Your task to perform on an android device: Show me popular games on the Play Store Image 0: 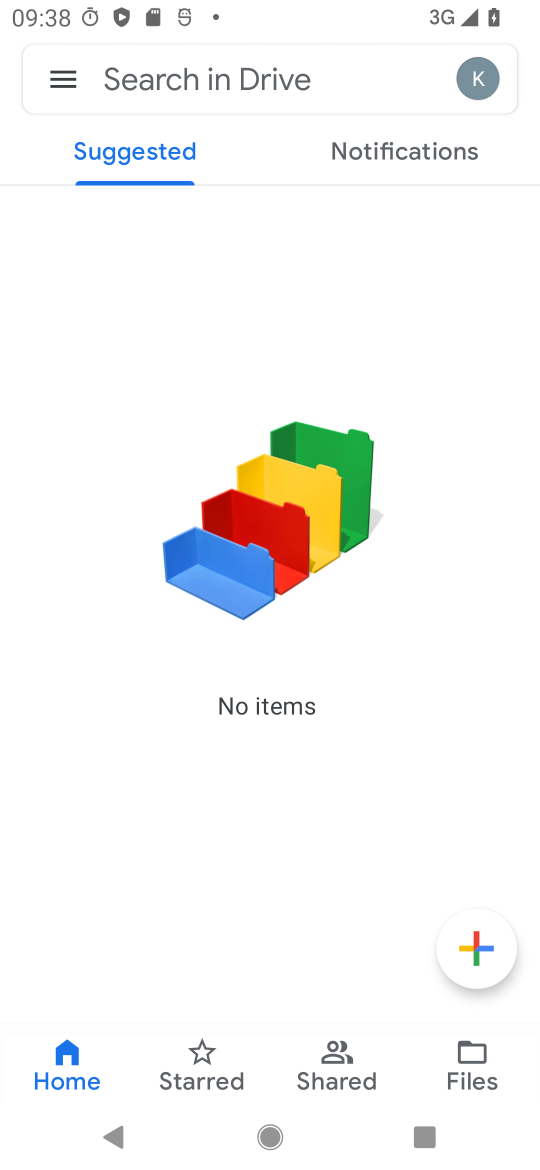
Step 0: press home button
Your task to perform on an android device: Show me popular games on the Play Store Image 1: 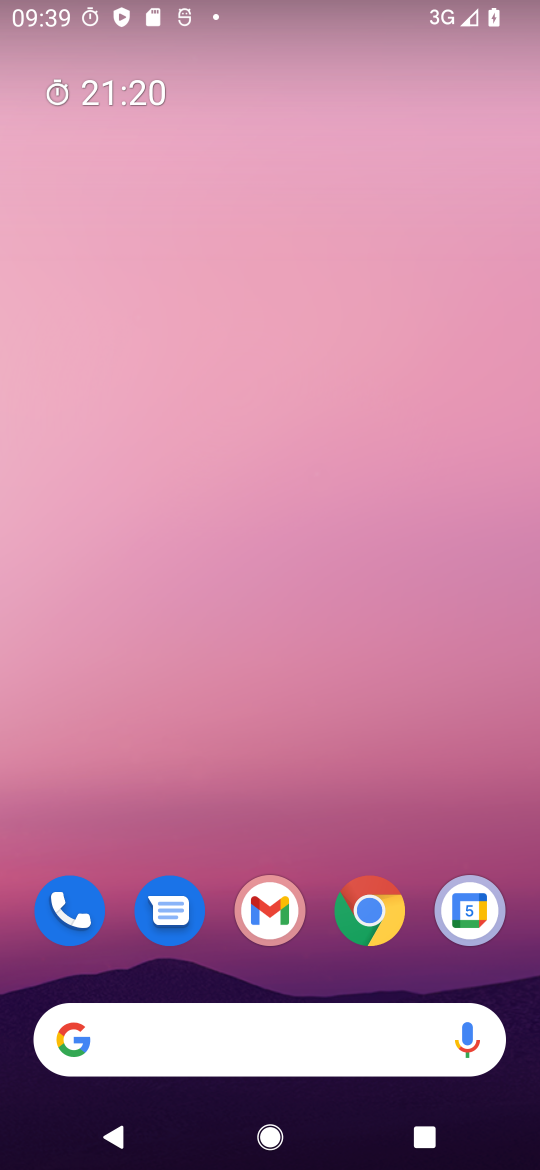
Step 1: drag from (376, 1039) to (309, 6)
Your task to perform on an android device: Show me popular games on the Play Store Image 2: 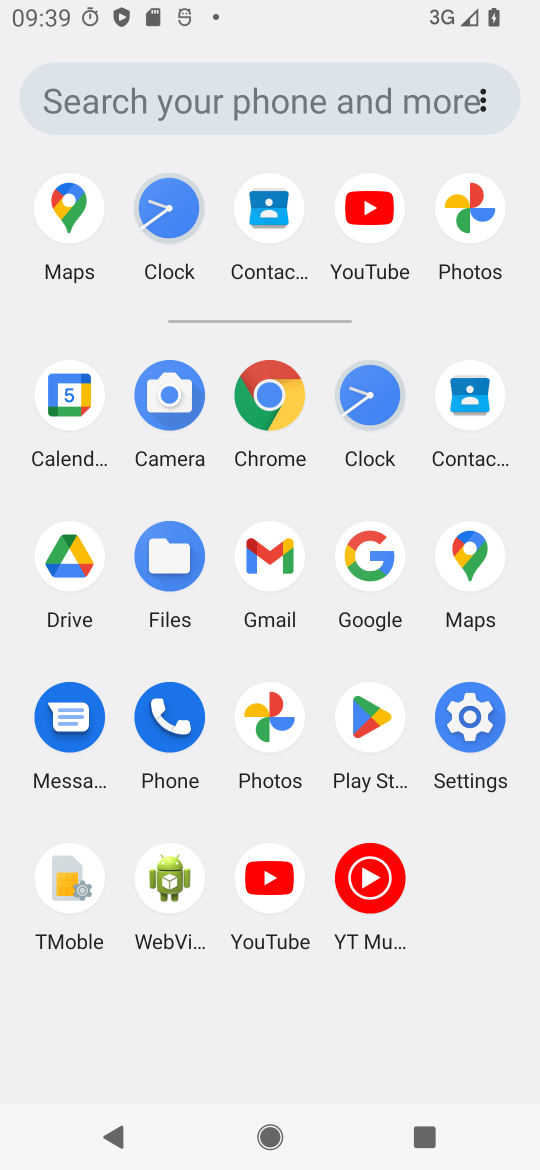
Step 2: click (375, 726)
Your task to perform on an android device: Show me popular games on the Play Store Image 3: 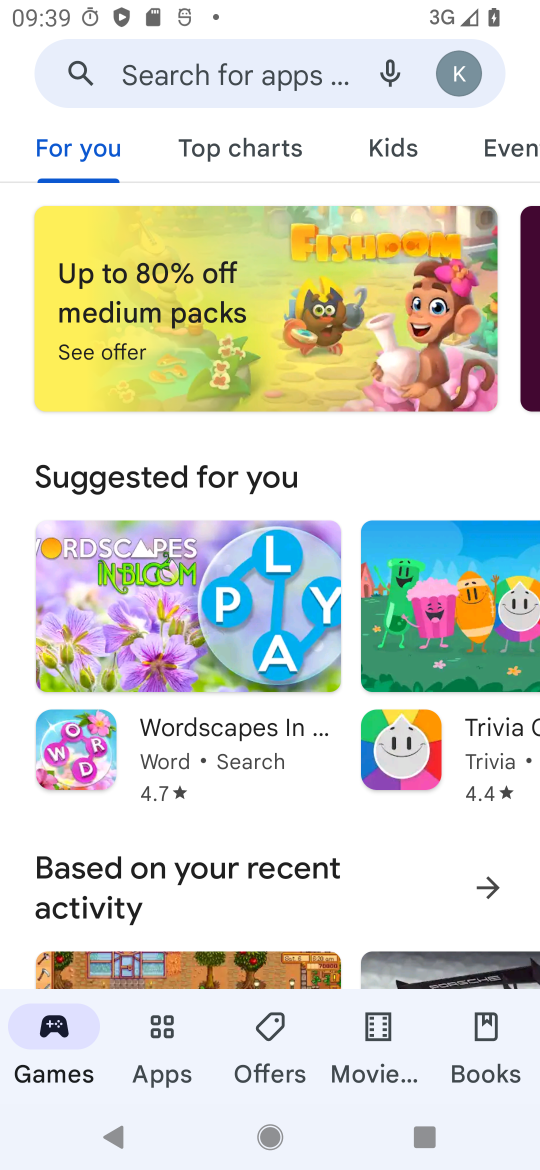
Step 3: task complete